Your task to perform on an android device: Is it going to rain this weekend? Image 0: 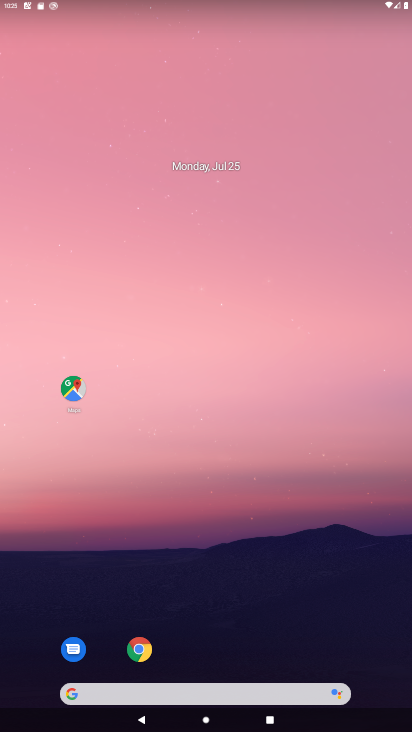
Step 0: drag from (6, 270) to (405, 257)
Your task to perform on an android device: Is it going to rain this weekend? Image 1: 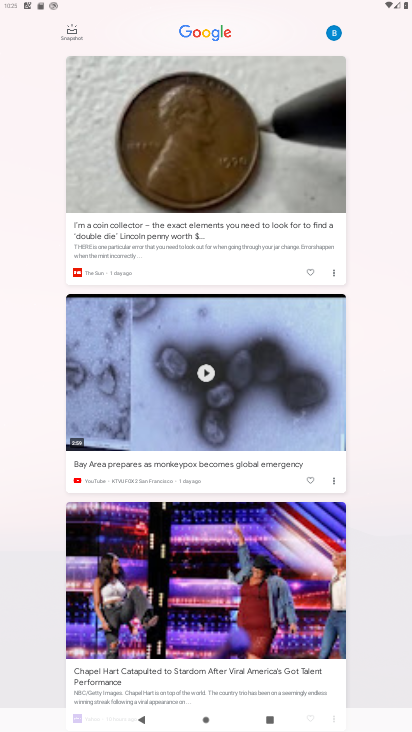
Step 1: drag from (408, 345) to (76, 328)
Your task to perform on an android device: Is it going to rain this weekend? Image 2: 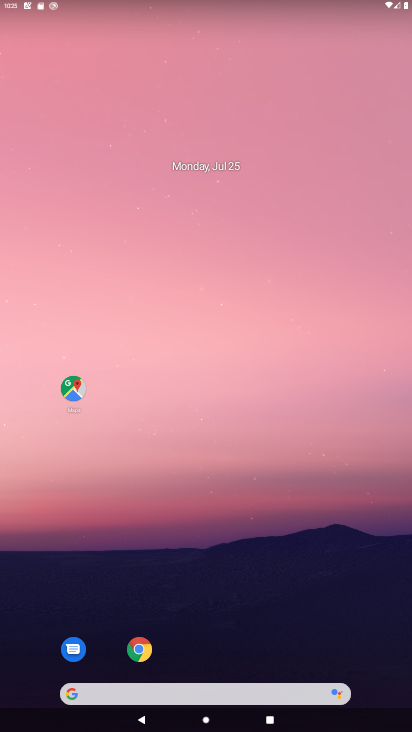
Step 2: click (126, 690)
Your task to perform on an android device: Is it going to rain this weekend? Image 3: 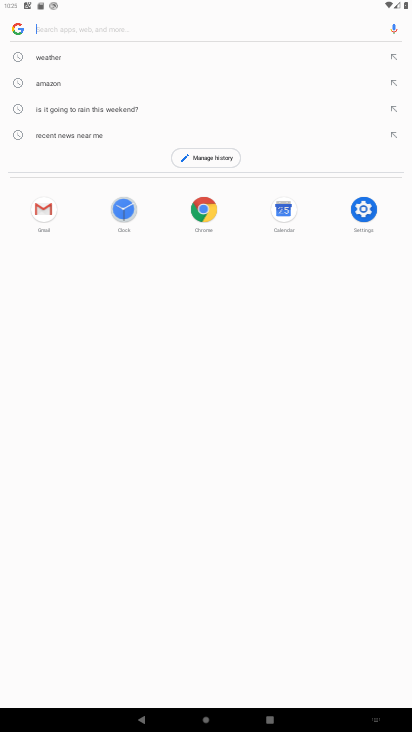
Step 3: click (48, 58)
Your task to perform on an android device: Is it going to rain this weekend? Image 4: 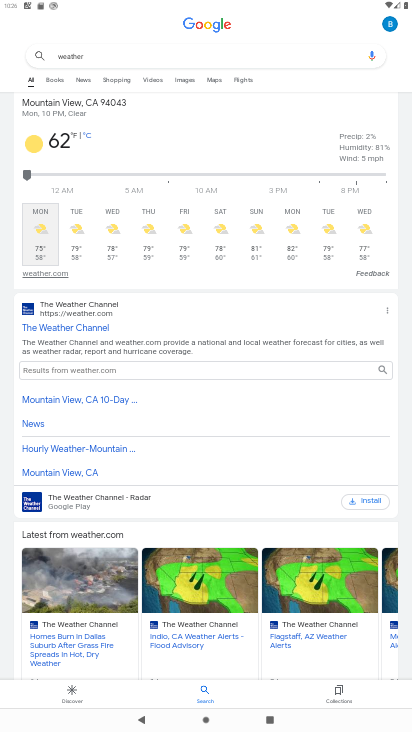
Step 4: task complete